Your task to perform on an android device: set the stopwatch Image 0: 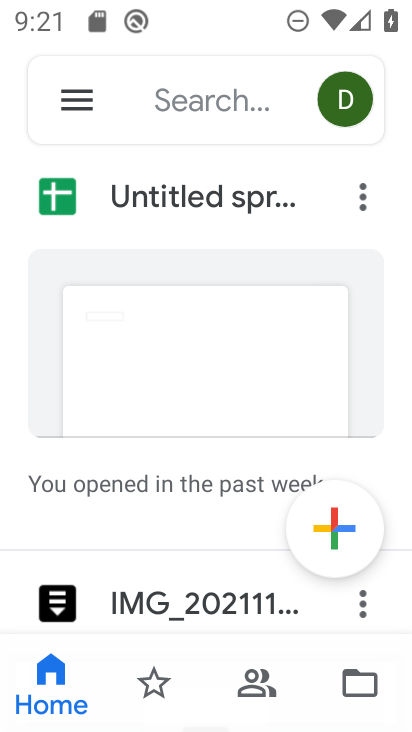
Step 0: press home button
Your task to perform on an android device: set the stopwatch Image 1: 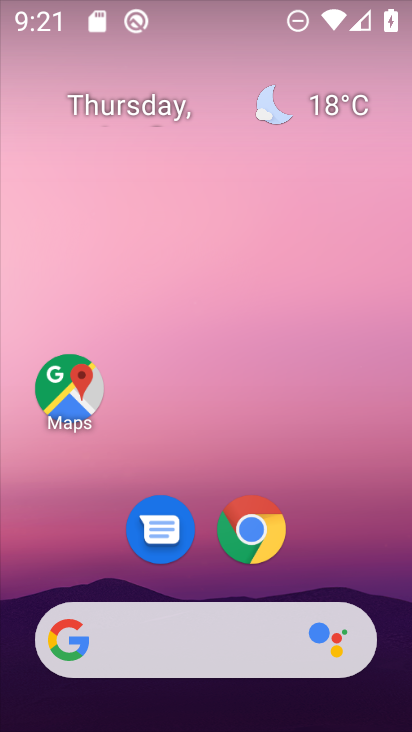
Step 1: drag from (386, 656) to (367, 308)
Your task to perform on an android device: set the stopwatch Image 2: 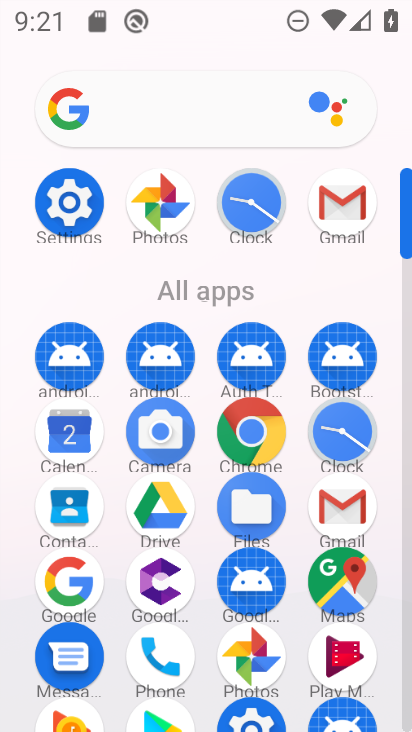
Step 2: click (331, 434)
Your task to perform on an android device: set the stopwatch Image 3: 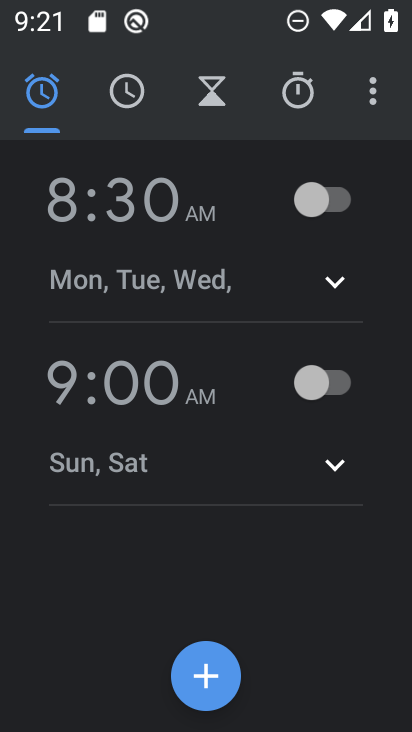
Step 3: click (202, 90)
Your task to perform on an android device: set the stopwatch Image 4: 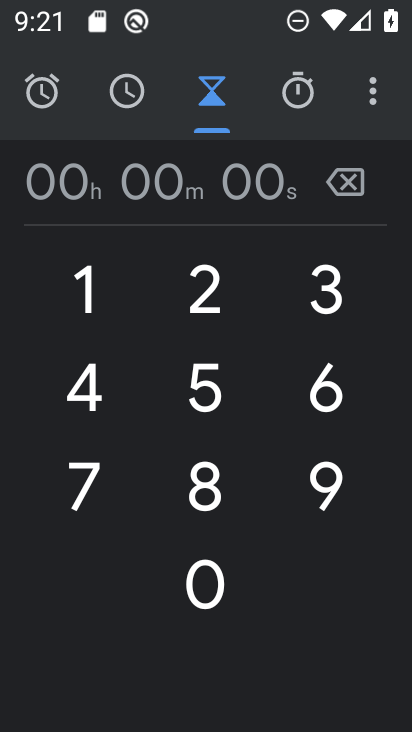
Step 4: click (263, 187)
Your task to perform on an android device: set the stopwatch Image 5: 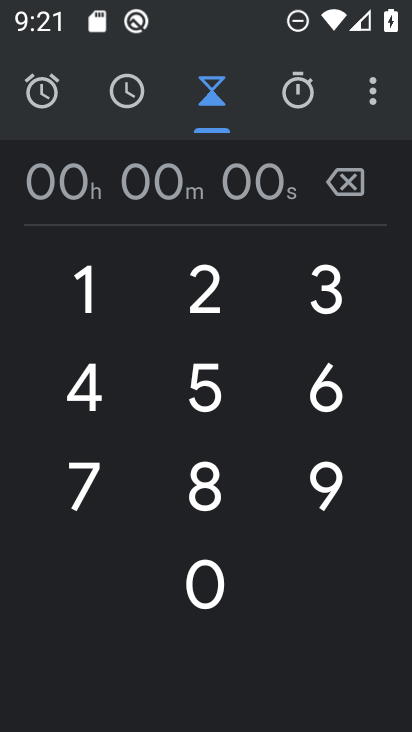
Step 5: click (205, 291)
Your task to perform on an android device: set the stopwatch Image 6: 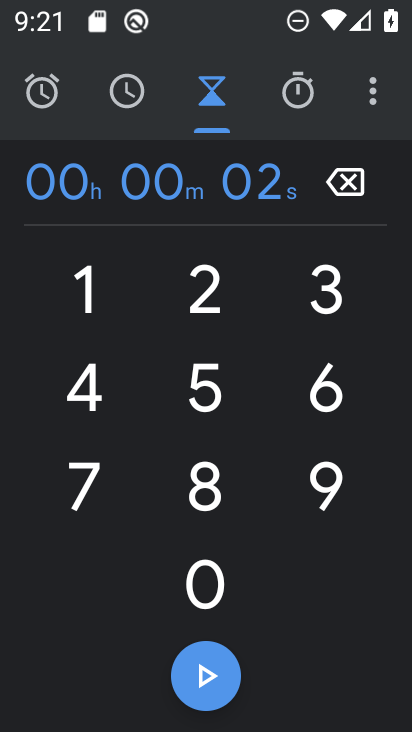
Step 6: click (205, 291)
Your task to perform on an android device: set the stopwatch Image 7: 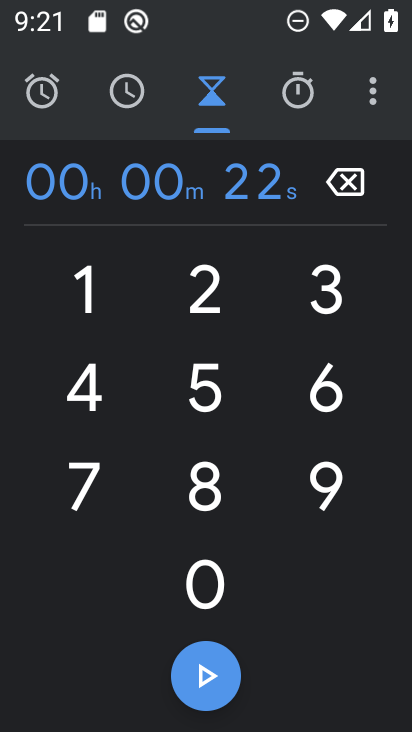
Step 7: click (90, 304)
Your task to perform on an android device: set the stopwatch Image 8: 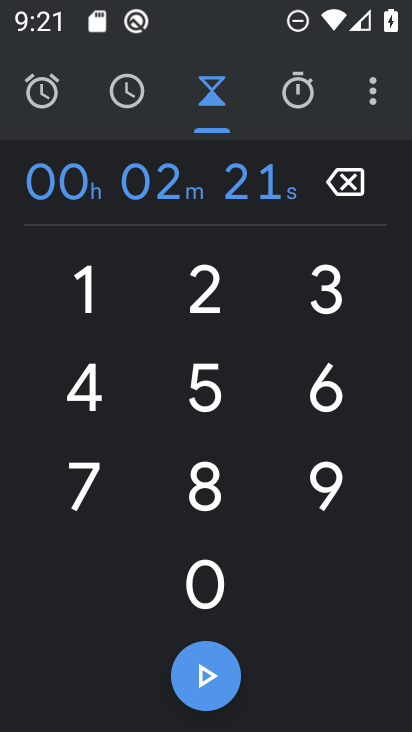
Step 8: click (205, 671)
Your task to perform on an android device: set the stopwatch Image 9: 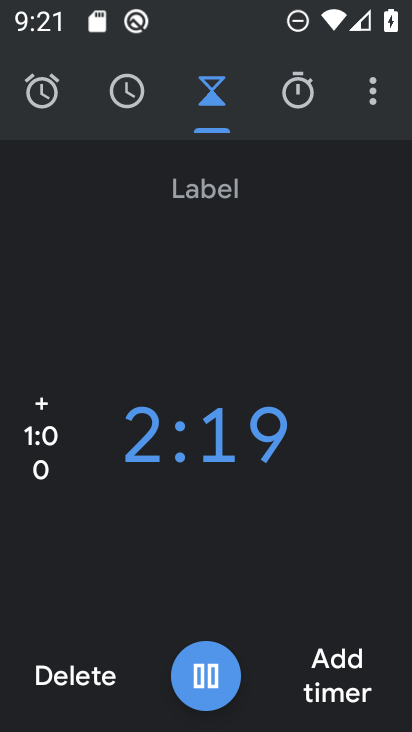
Step 9: task complete